Your task to perform on an android device: turn notification dots on Image 0: 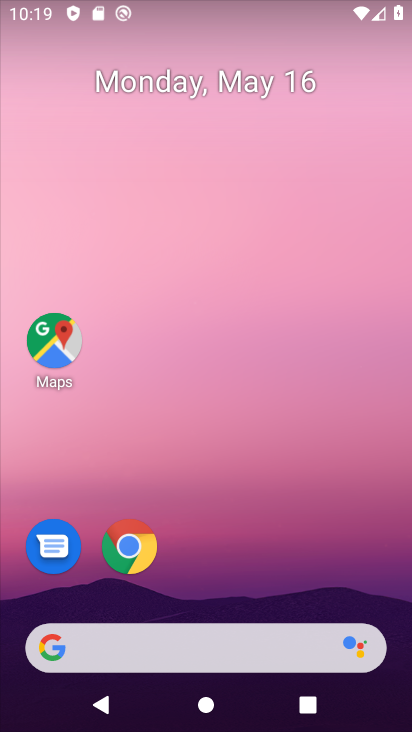
Step 0: drag from (337, 523) to (323, 22)
Your task to perform on an android device: turn notification dots on Image 1: 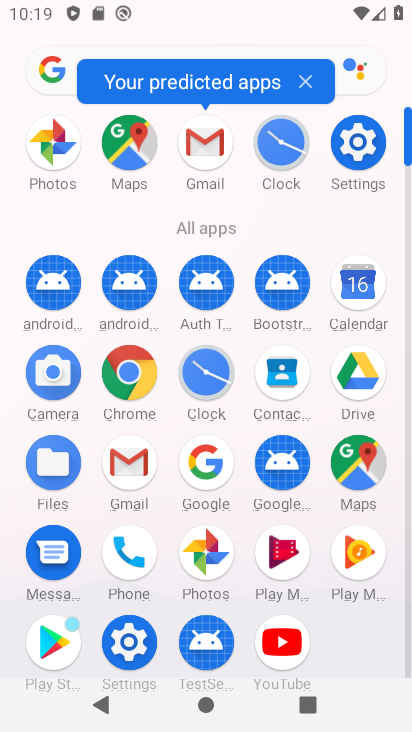
Step 1: click (359, 160)
Your task to perform on an android device: turn notification dots on Image 2: 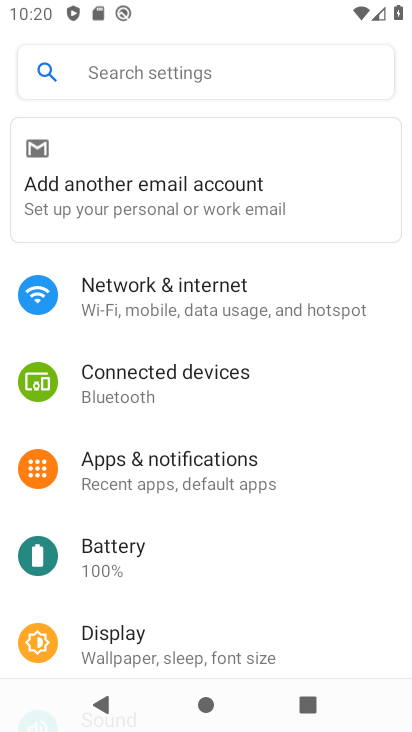
Step 2: click (200, 474)
Your task to perform on an android device: turn notification dots on Image 3: 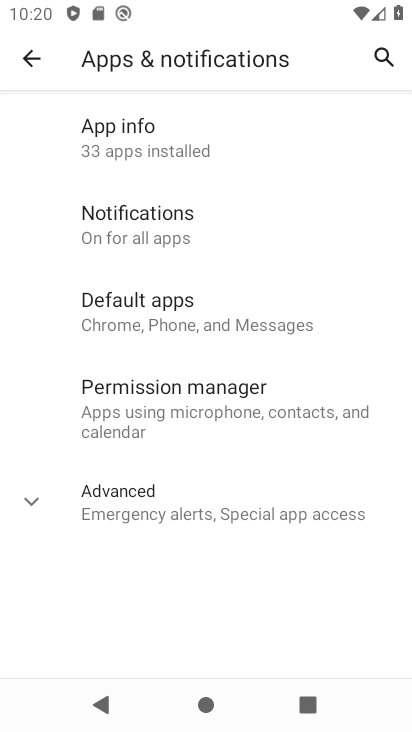
Step 3: click (183, 233)
Your task to perform on an android device: turn notification dots on Image 4: 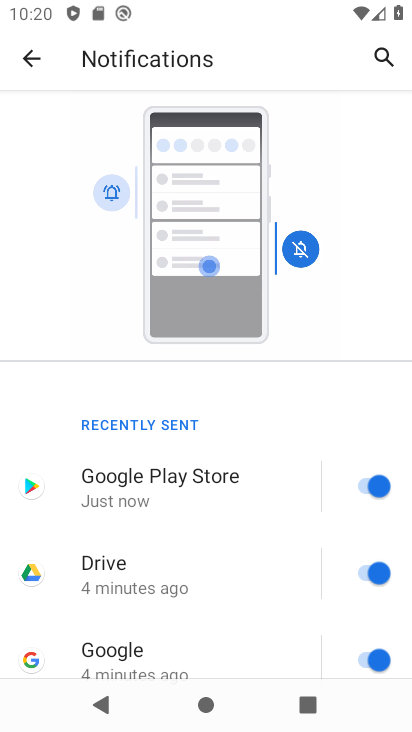
Step 4: drag from (170, 640) to (254, 132)
Your task to perform on an android device: turn notification dots on Image 5: 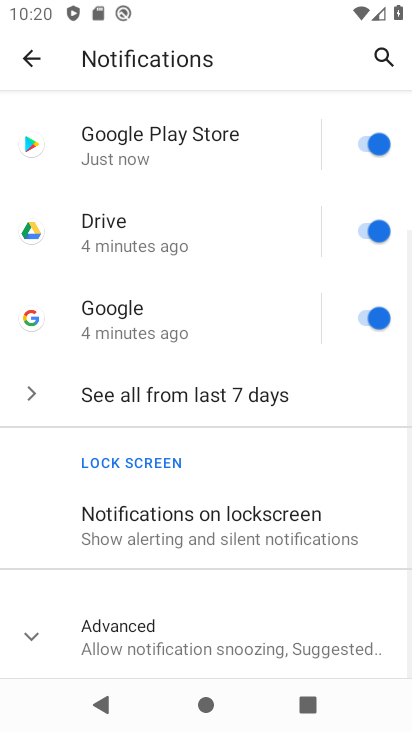
Step 5: drag from (238, 569) to (295, 242)
Your task to perform on an android device: turn notification dots on Image 6: 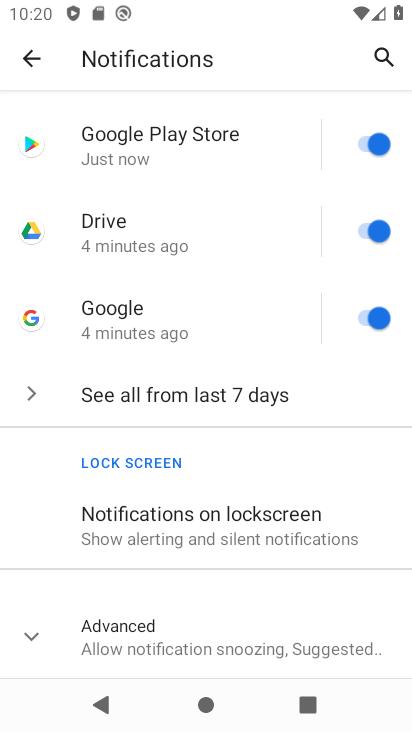
Step 6: drag from (229, 587) to (244, 147)
Your task to perform on an android device: turn notification dots on Image 7: 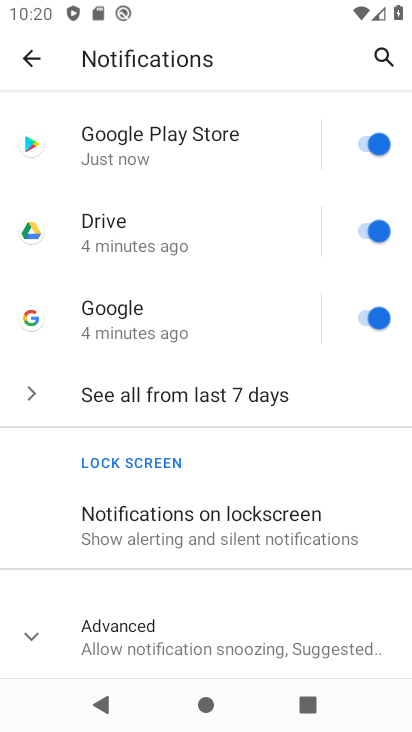
Step 7: click (217, 653)
Your task to perform on an android device: turn notification dots on Image 8: 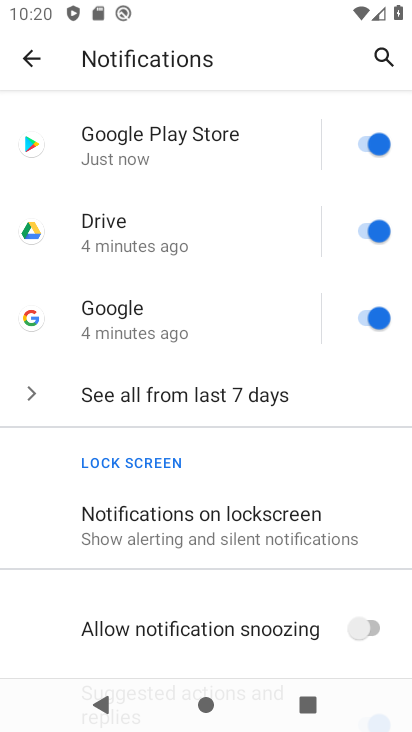
Step 8: task complete